Your task to perform on an android device: turn pop-ups on in chrome Image 0: 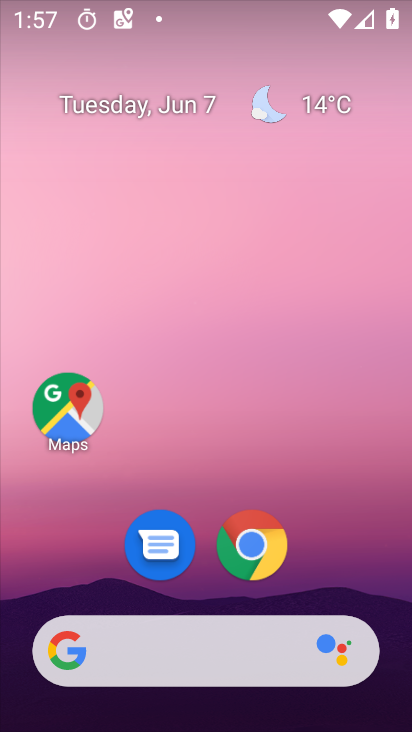
Step 0: click (262, 542)
Your task to perform on an android device: turn pop-ups on in chrome Image 1: 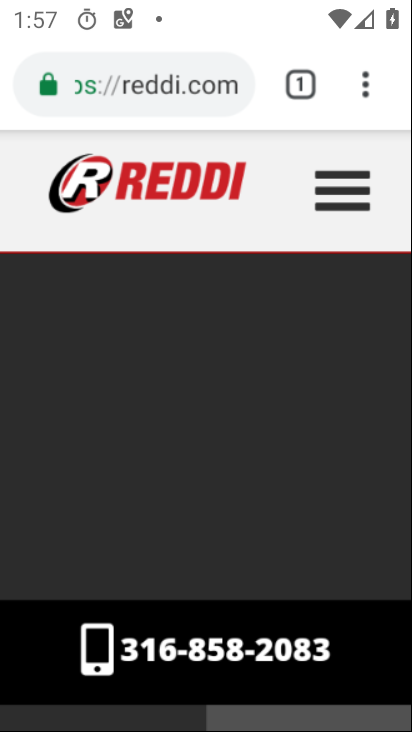
Step 1: click (360, 82)
Your task to perform on an android device: turn pop-ups on in chrome Image 2: 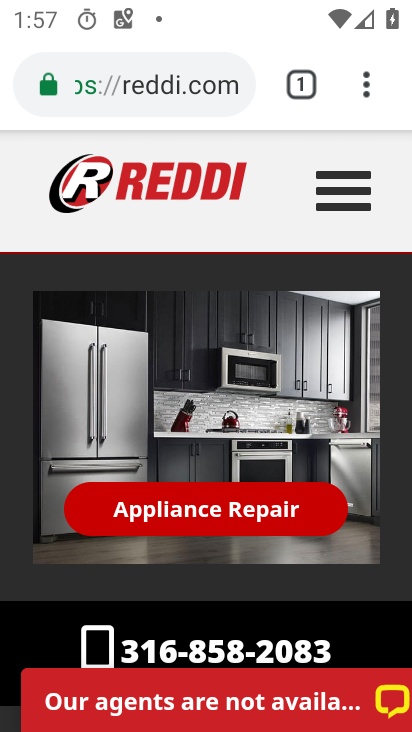
Step 2: click (367, 82)
Your task to perform on an android device: turn pop-ups on in chrome Image 3: 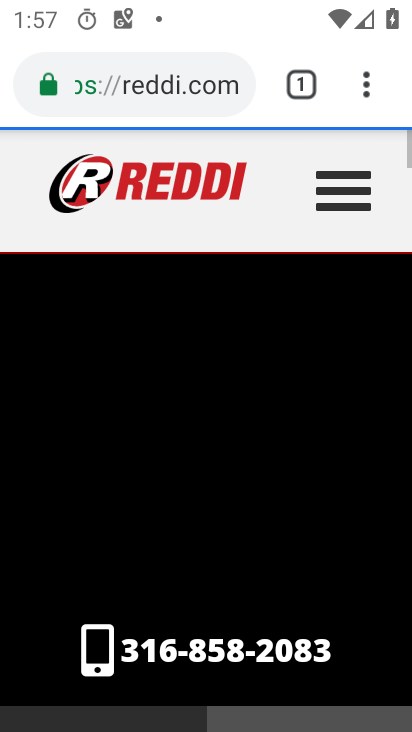
Step 3: click (372, 79)
Your task to perform on an android device: turn pop-ups on in chrome Image 4: 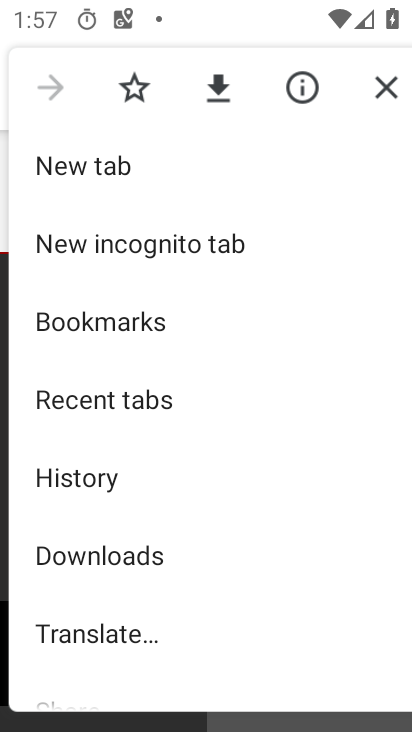
Step 4: drag from (232, 576) to (278, 66)
Your task to perform on an android device: turn pop-ups on in chrome Image 5: 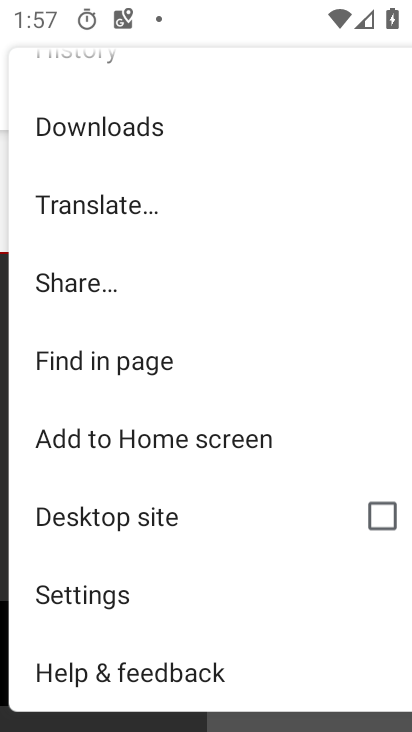
Step 5: click (231, 591)
Your task to perform on an android device: turn pop-ups on in chrome Image 6: 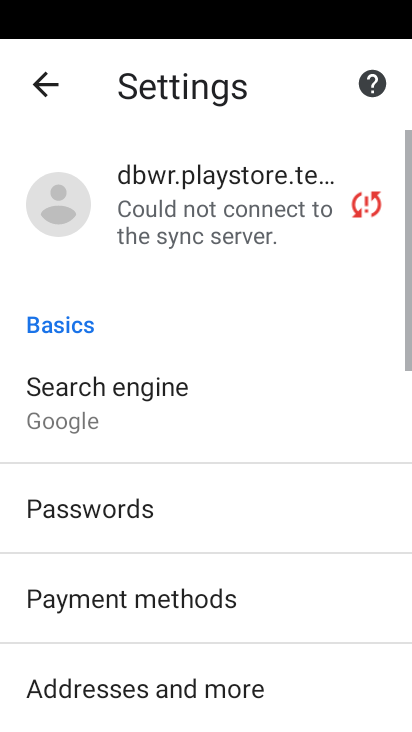
Step 6: drag from (206, 559) to (262, 61)
Your task to perform on an android device: turn pop-ups on in chrome Image 7: 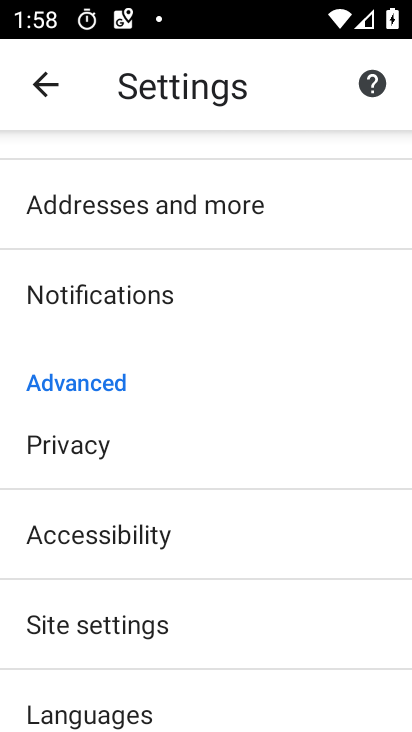
Step 7: click (184, 616)
Your task to perform on an android device: turn pop-ups on in chrome Image 8: 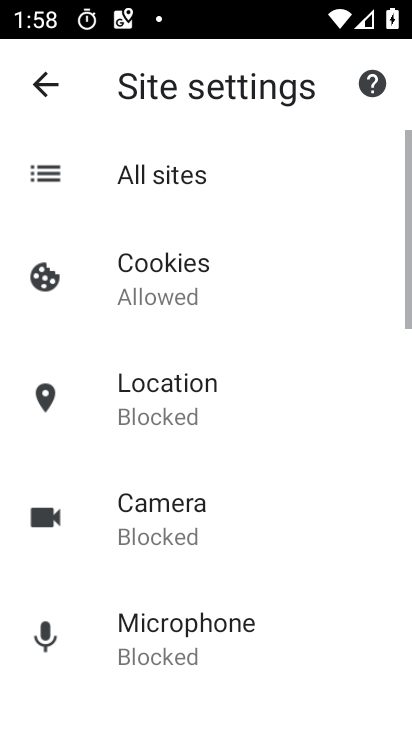
Step 8: drag from (276, 563) to (292, 79)
Your task to perform on an android device: turn pop-ups on in chrome Image 9: 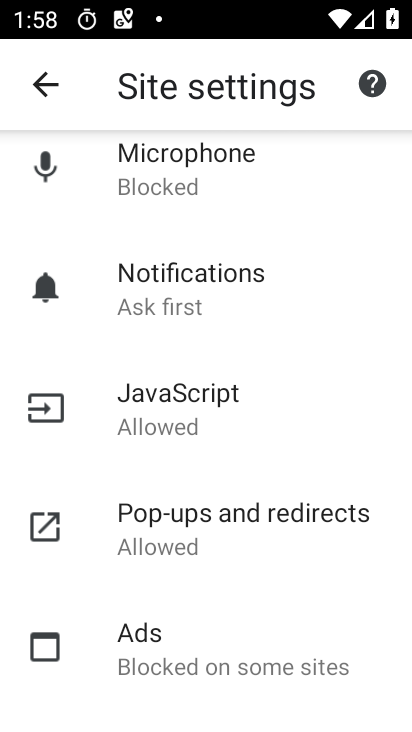
Step 9: click (203, 514)
Your task to perform on an android device: turn pop-ups on in chrome Image 10: 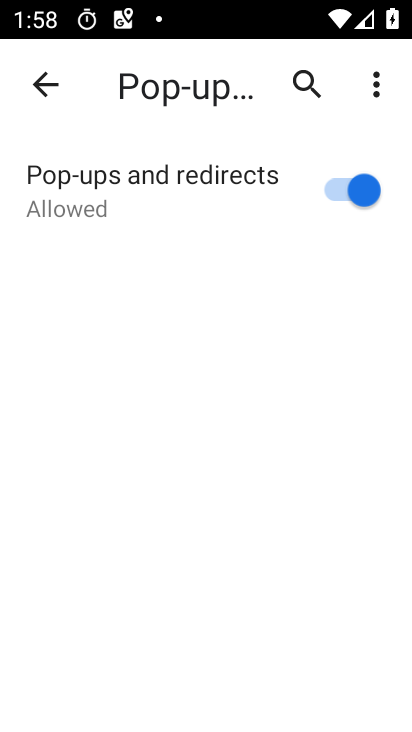
Step 10: task complete